Your task to perform on an android device: change your default location settings in chrome Image 0: 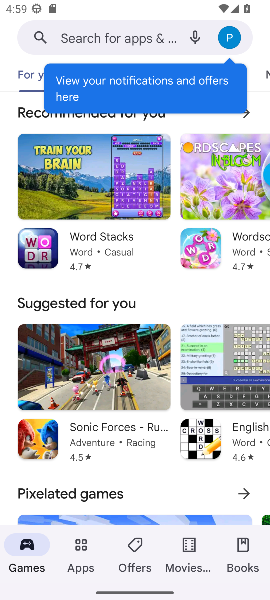
Step 0: press home button
Your task to perform on an android device: change your default location settings in chrome Image 1: 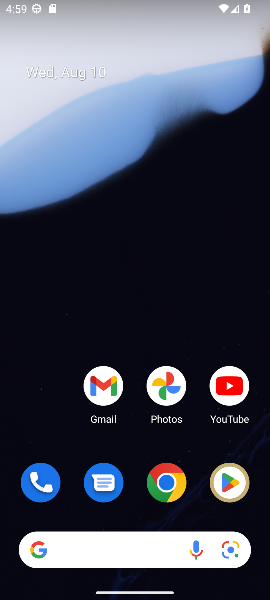
Step 1: click (166, 481)
Your task to perform on an android device: change your default location settings in chrome Image 2: 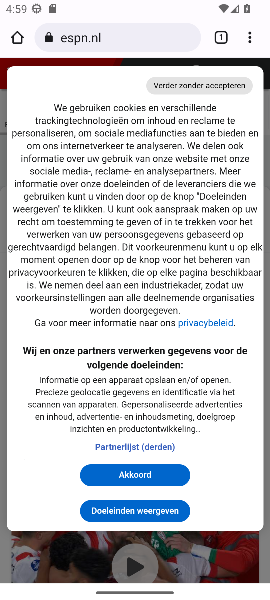
Step 2: click (251, 41)
Your task to perform on an android device: change your default location settings in chrome Image 3: 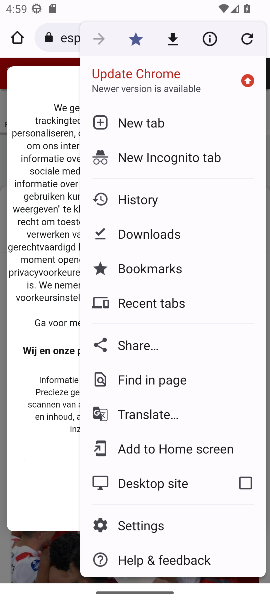
Step 3: click (160, 521)
Your task to perform on an android device: change your default location settings in chrome Image 4: 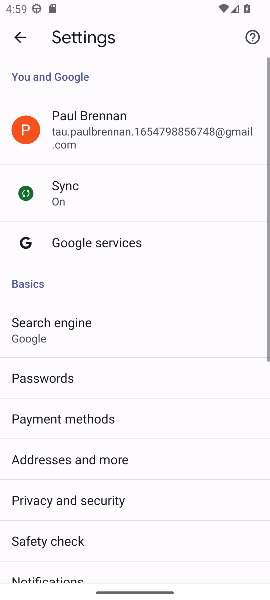
Step 4: drag from (182, 450) to (193, 375)
Your task to perform on an android device: change your default location settings in chrome Image 5: 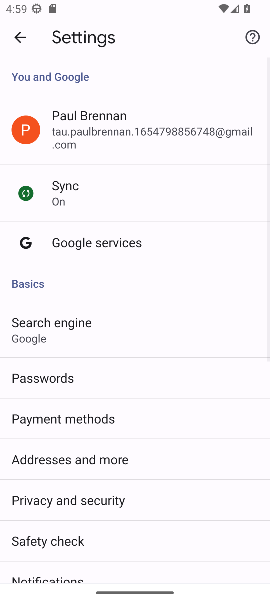
Step 5: drag from (197, 297) to (224, 50)
Your task to perform on an android device: change your default location settings in chrome Image 6: 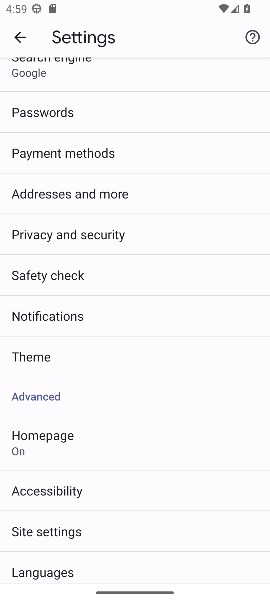
Step 6: click (72, 528)
Your task to perform on an android device: change your default location settings in chrome Image 7: 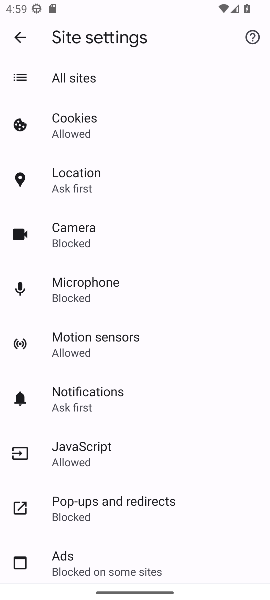
Step 7: click (83, 183)
Your task to perform on an android device: change your default location settings in chrome Image 8: 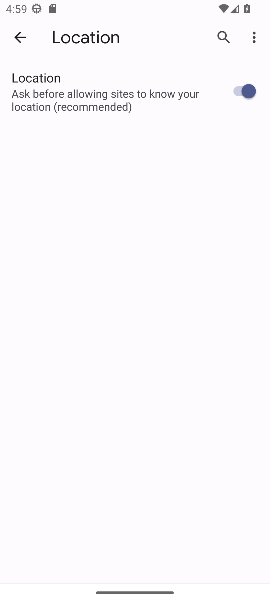
Step 8: click (242, 86)
Your task to perform on an android device: change your default location settings in chrome Image 9: 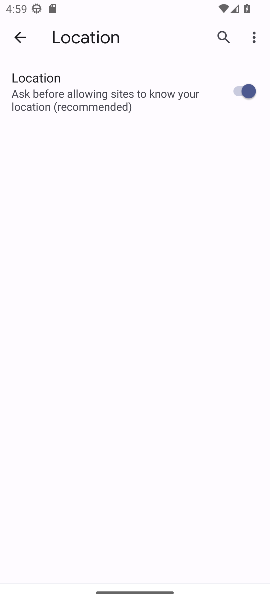
Step 9: click (242, 86)
Your task to perform on an android device: change your default location settings in chrome Image 10: 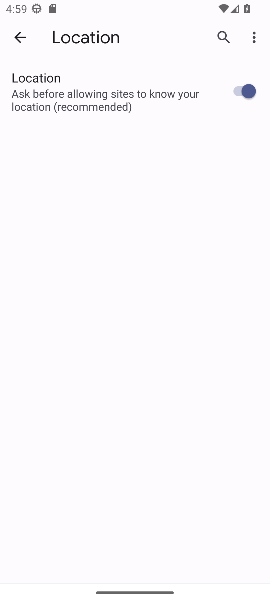
Step 10: click (245, 92)
Your task to perform on an android device: change your default location settings in chrome Image 11: 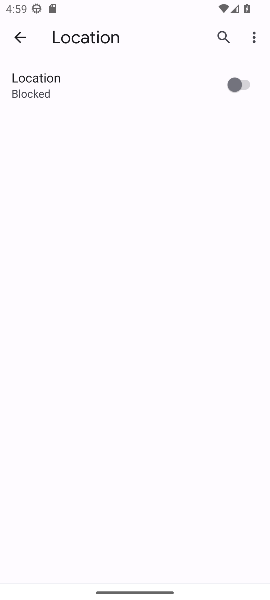
Step 11: task complete